Your task to perform on an android device: open app "VLC for Android" (install if not already installed) Image 0: 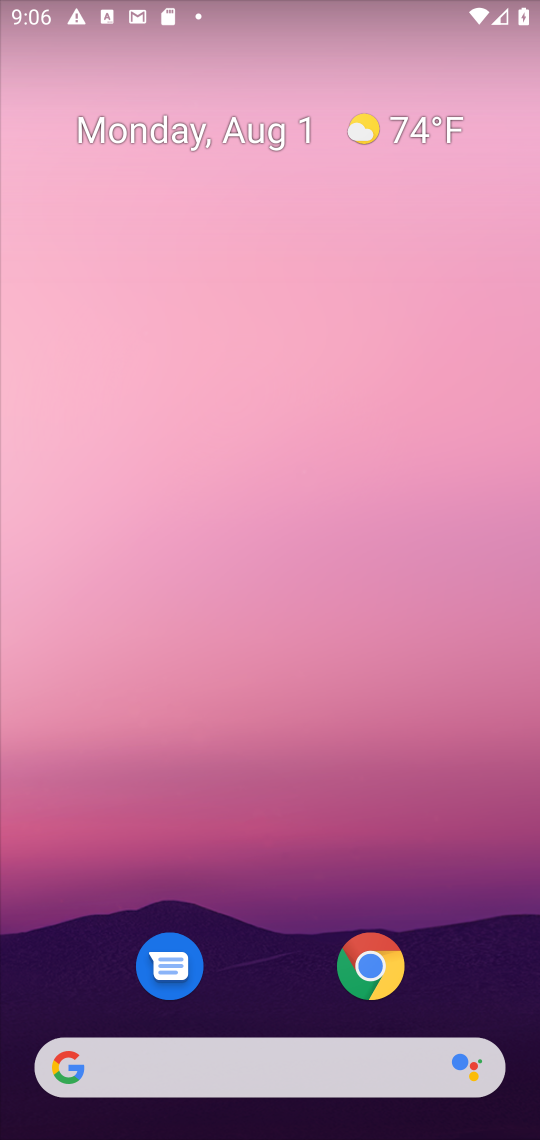
Step 0: drag from (521, 1088) to (377, 346)
Your task to perform on an android device: open app "VLC for Android" (install if not already installed) Image 1: 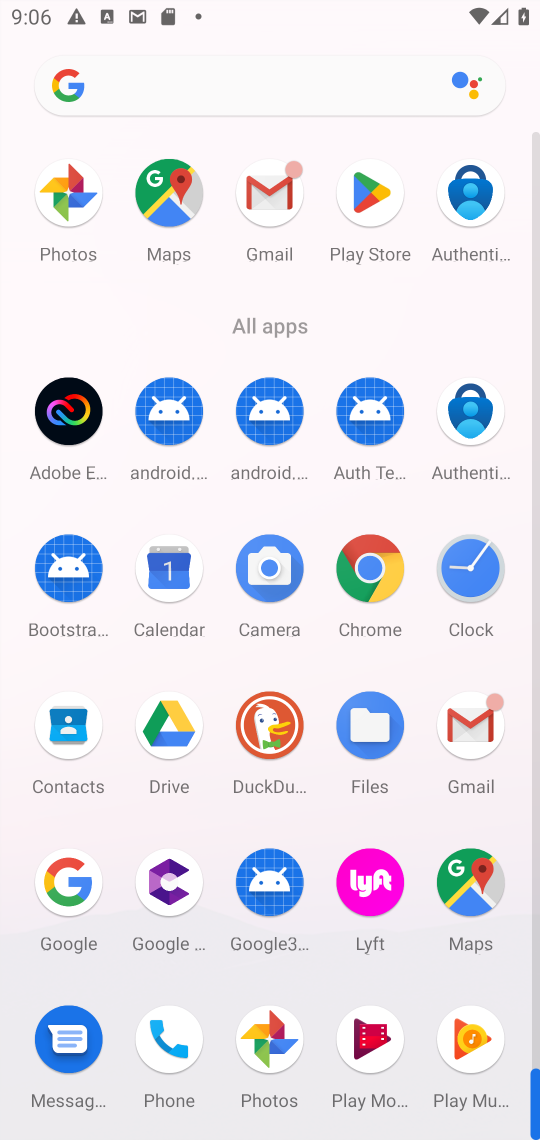
Step 1: click (359, 201)
Your task to perform on an android device: open app "VLC for Android" (install if not already installed) Image 2: 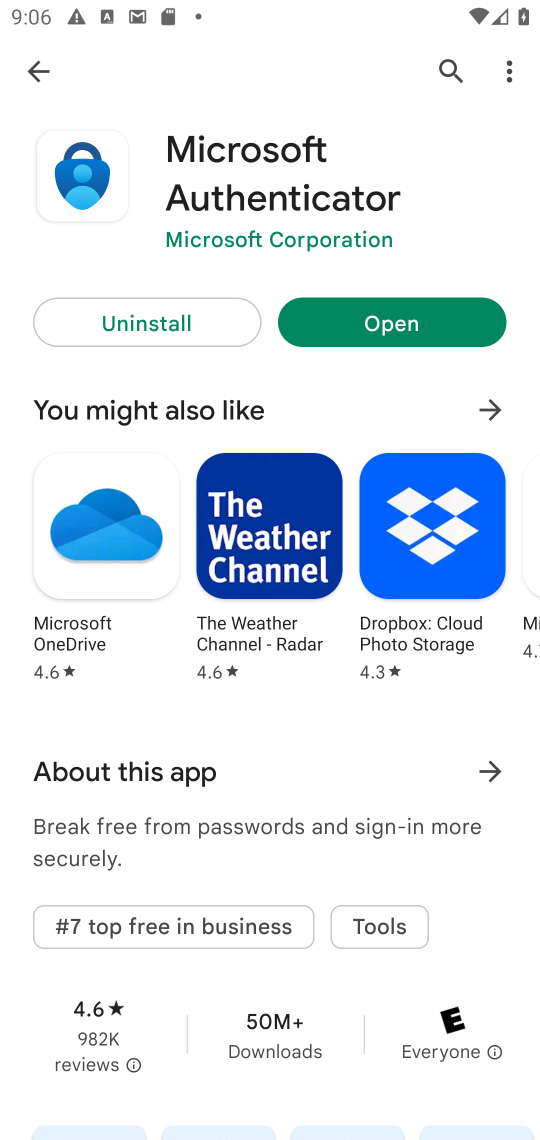
Step 2: click (445, 73)
Your task to perform on an android device: open app "VLC for Android" (install if not already installed) Image 3: 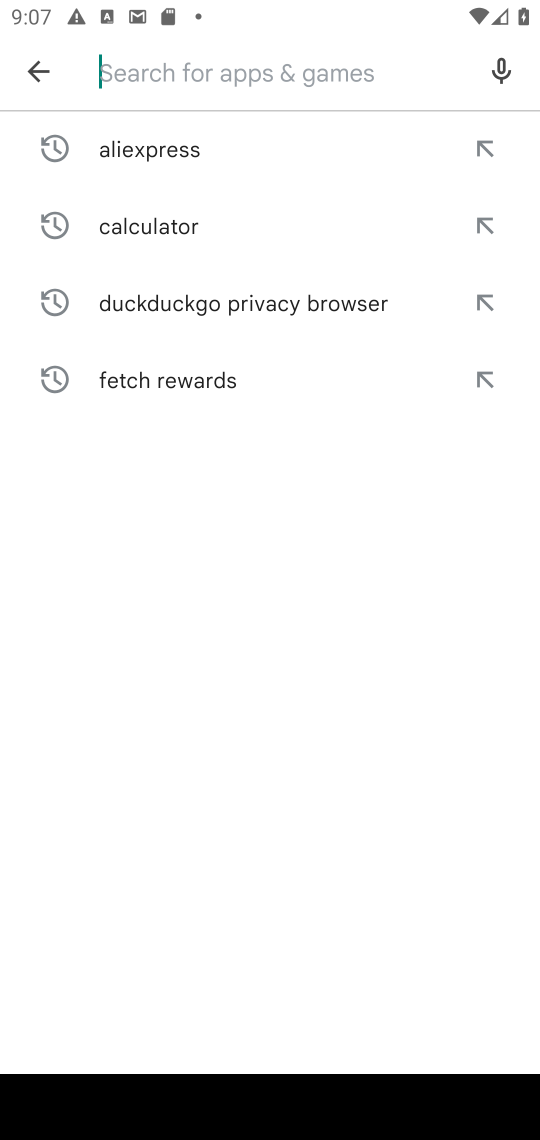
Step 3: type "VLC for Android"
Your task to perform on an android device: open app "VLC for Android" (install if not already installed) Image 4: 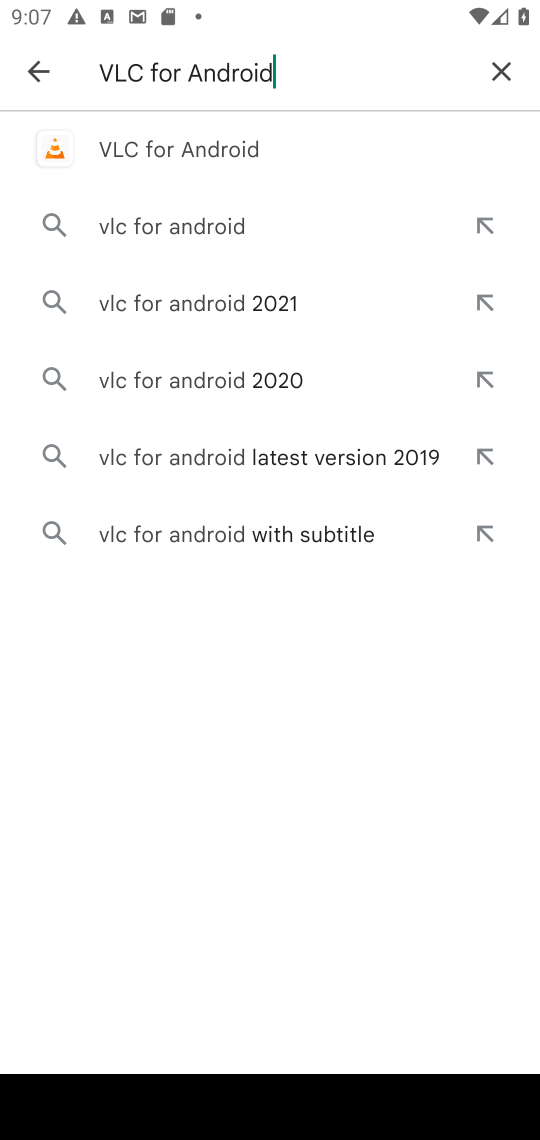
Step 4: click (115, 145)
Your task to perform on an android device: open app "VLC for Android" (install if not already installed) Image 5: 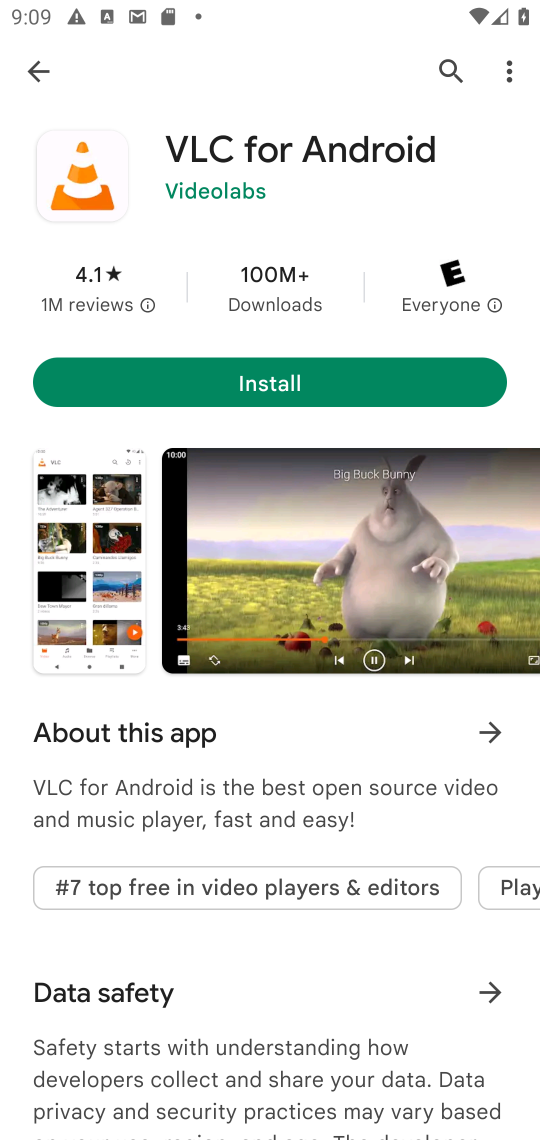
Step 5: click (414, 375)
Your task to perform on an android device: open app "VLC for Android" (install if not already installed) Image 6: 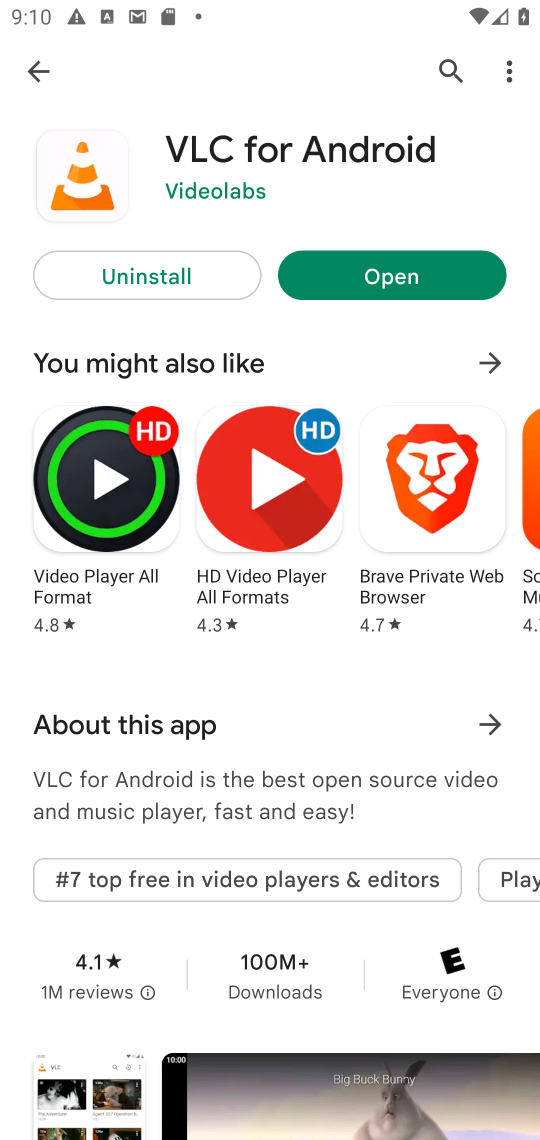
Step 6: click (343, 273)
Your task to perform on an android device: open app "VLC for Android" (install if not already installed) Image 7: 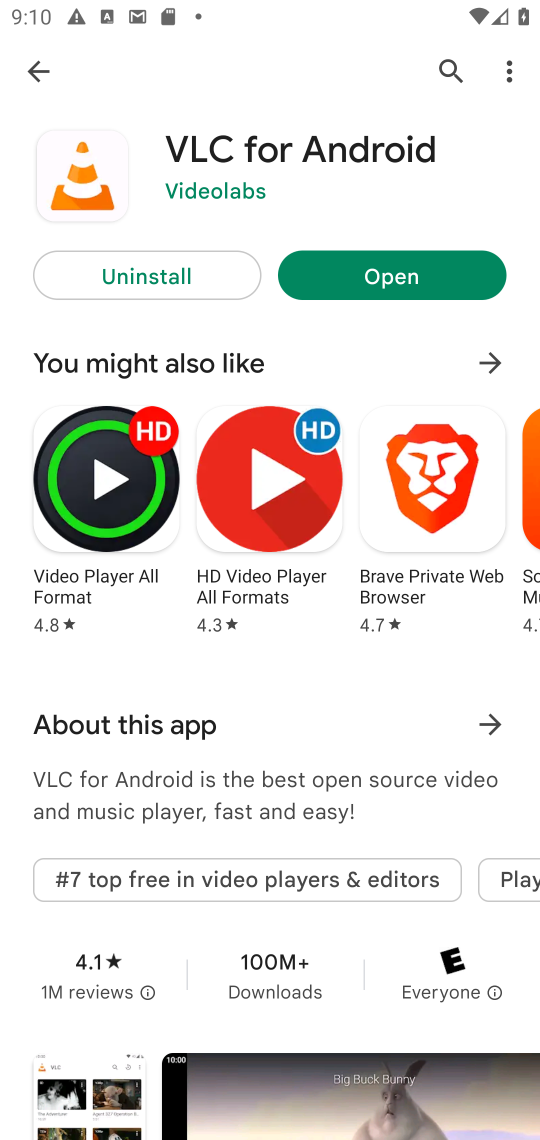
Step 7: click (325, 265)
Your task to perform on an android device: open app "VLC for Android" (install if not already installed) Image 8: 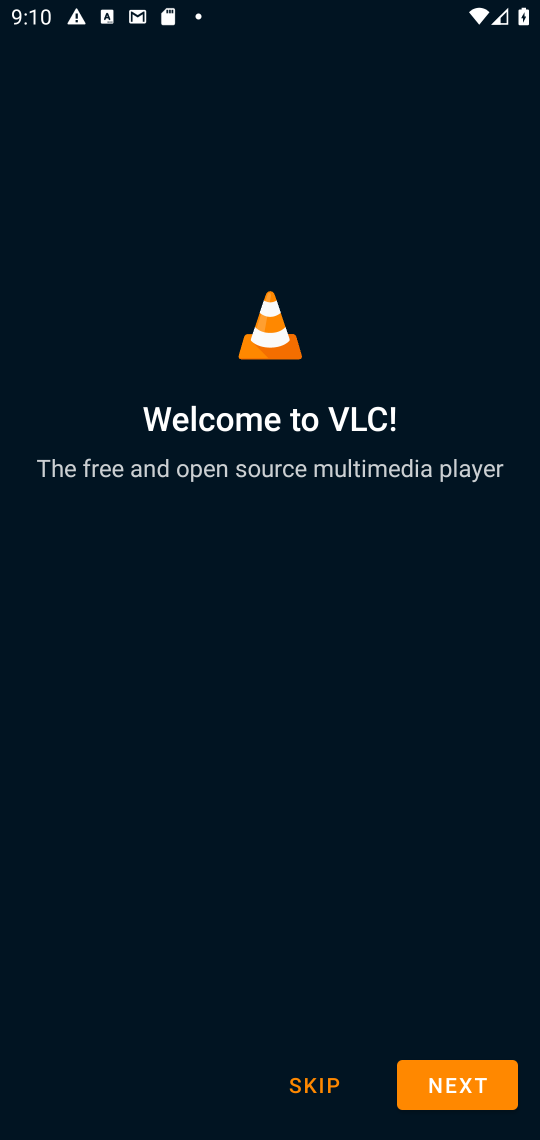
Step 8: click (425, 275)
Your task to perform on an android device: open app "VLC for Android" (install if not already installed) Image 9: 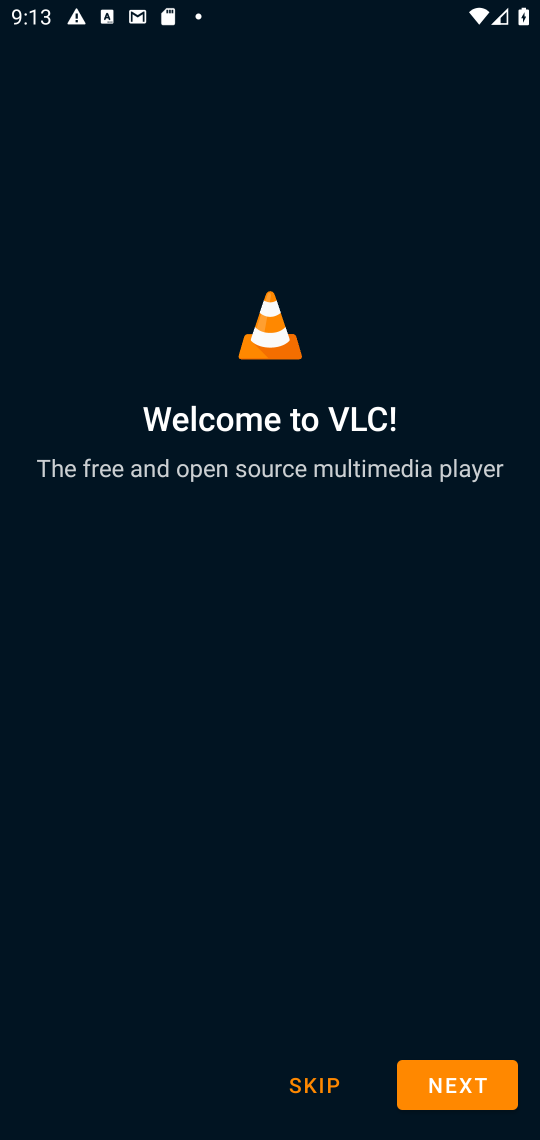
Step 9: click (453, 1096)
Your task to perform on an android device: open app "VLC for Android" (install if not already installed) Image 10: 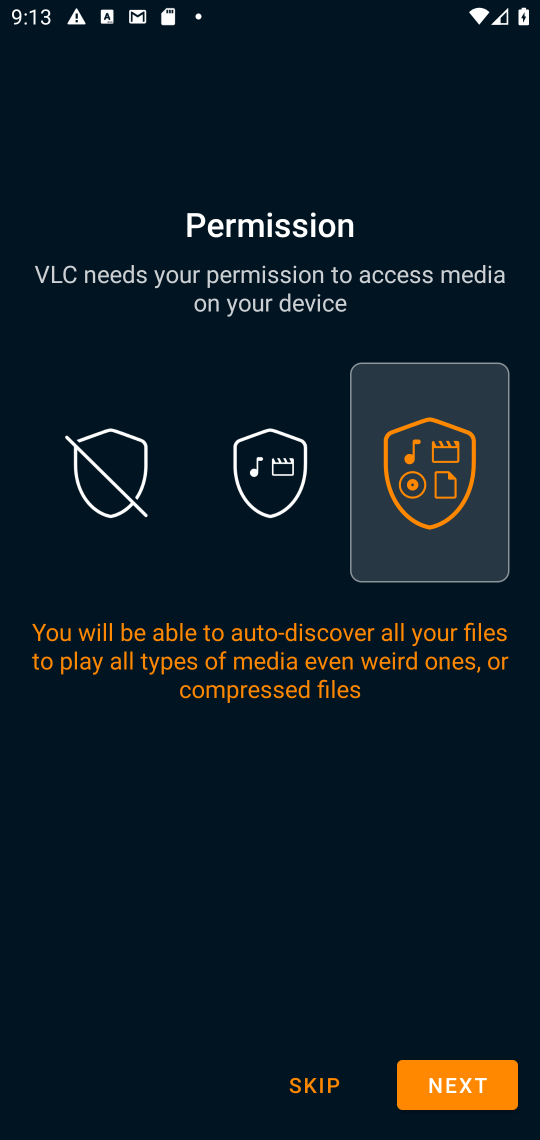
Step 10: click (455, 1090)
Your task to perform on an android device: open app "VLC for Android" (install if not already installed) Image 11: 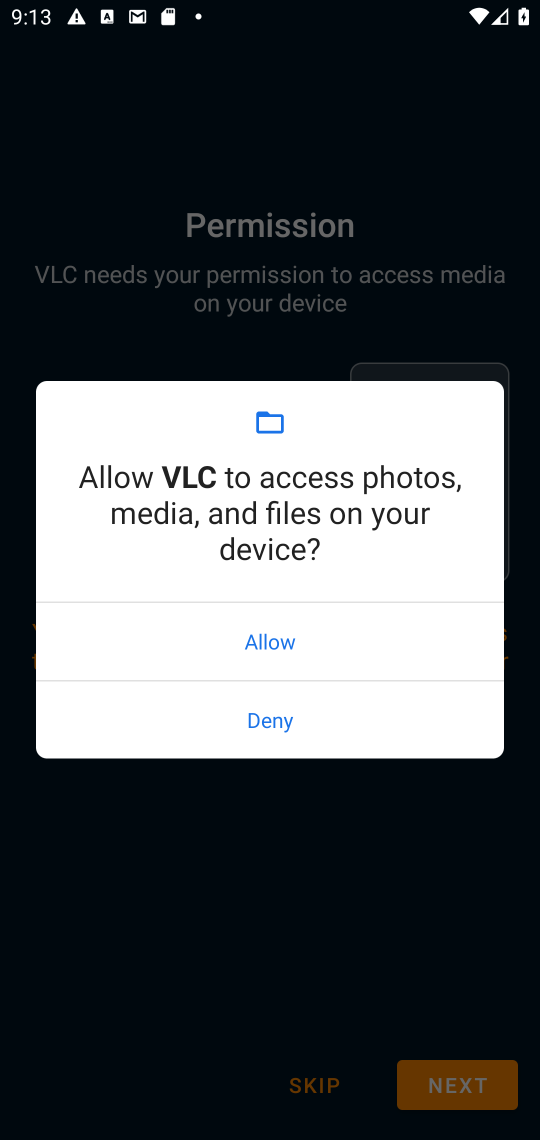
Step 11: click (275, 642)
Your task to perform on an android device: open app "VLC for Android" (install if not already installed) Image 12: 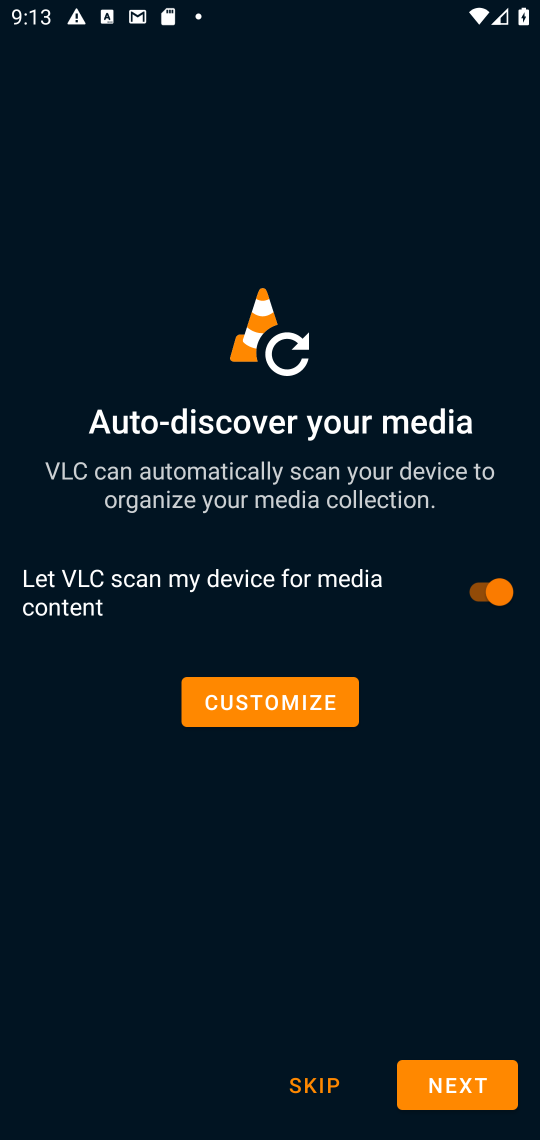
Step 12: click (309, 700)
Your task to perform on an android device: open app "VLC for Android" (install if not already installed) Image 13: 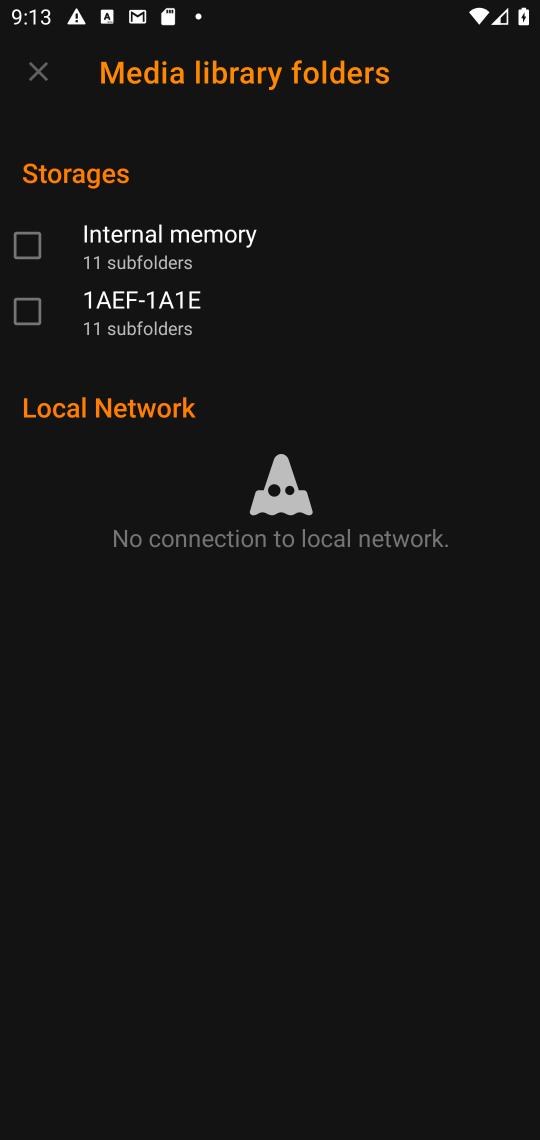
Step 13: task complete